Your task to perform on an android device: Open battery settings Image 0: 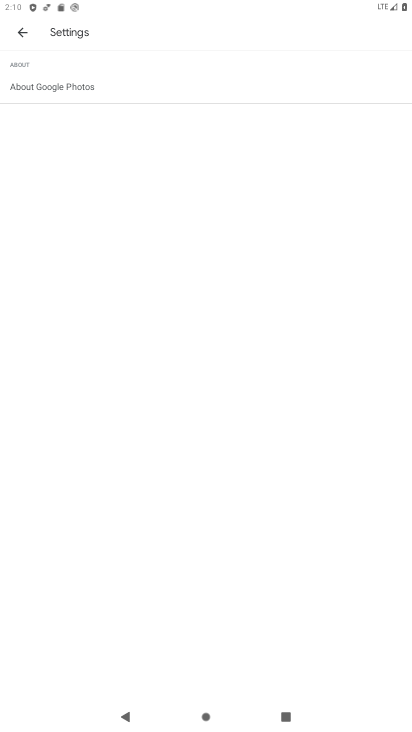
Step 0: press home button
Your task to perform on an android device: Open battery settings Image 1: 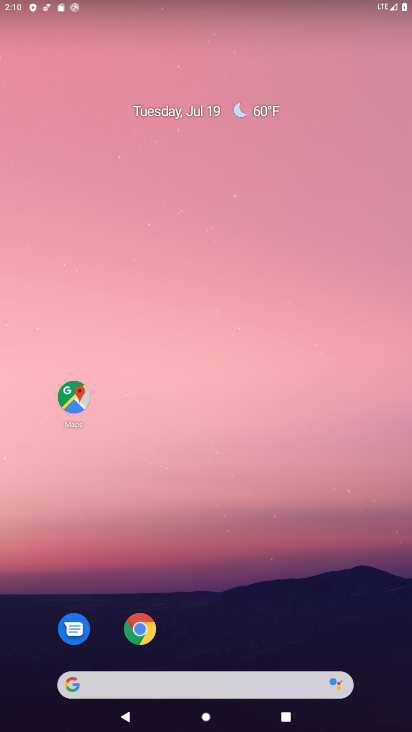
Step 1: drag from (210, 621) to (179, 191)
Your task to perform on an android device: Open battery settings Image 2: 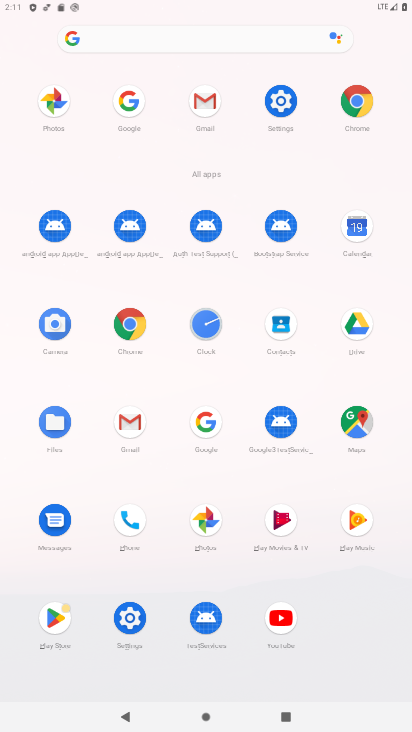
Step 2: click (268, 121)
Your task to perform on an android device: Open battery settings Image 3: 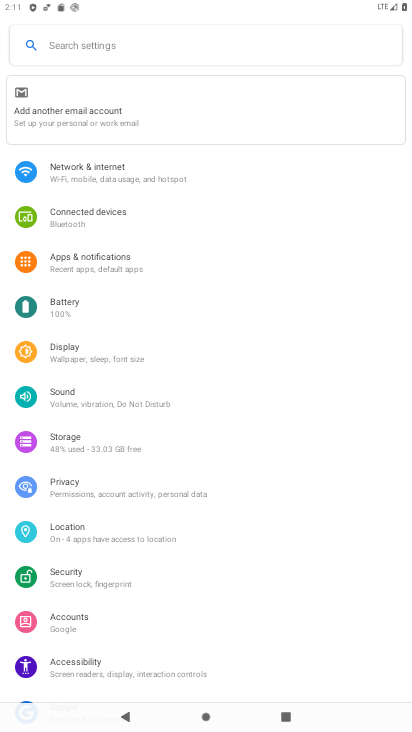
Step 3: click (88, 309)
Your task to perform on an android device: Open battery settings Image 4: 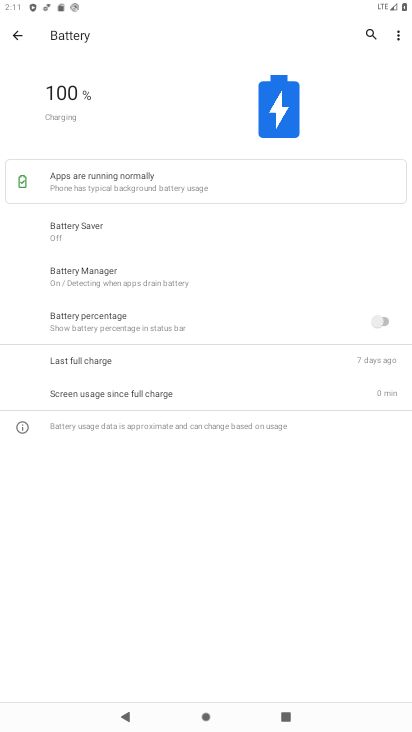
Step 4: task complete